Your task to perform on an android device: Open Chrome and go to settings Image 0: 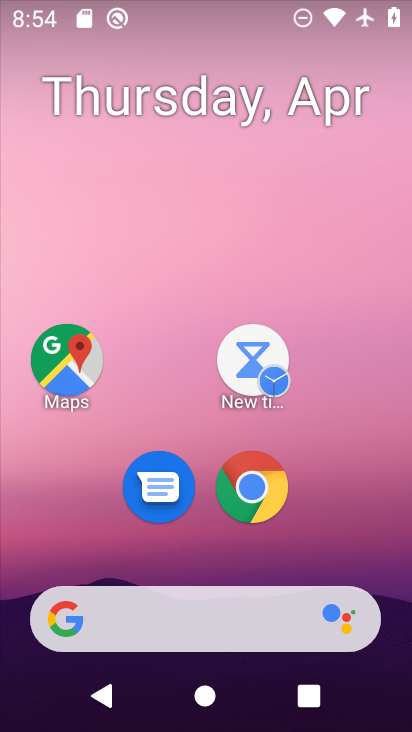
Step 0: click (274, 475)
Your task to perform on an android device: Open Chrome and go to settings Image 1: 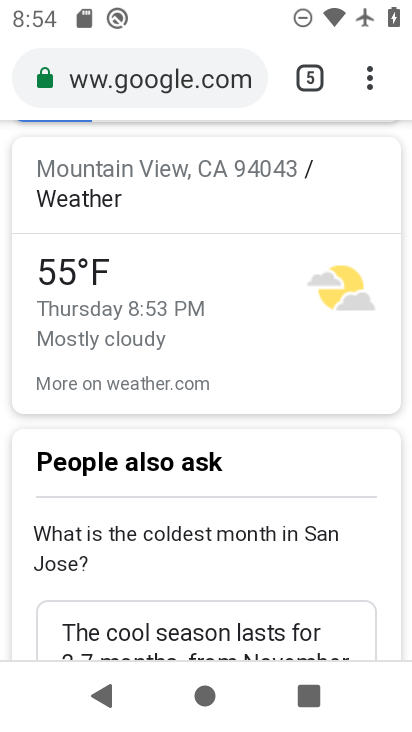
Step 1: task complete